Your task to perform on an android device: open wifi settings Image 0: 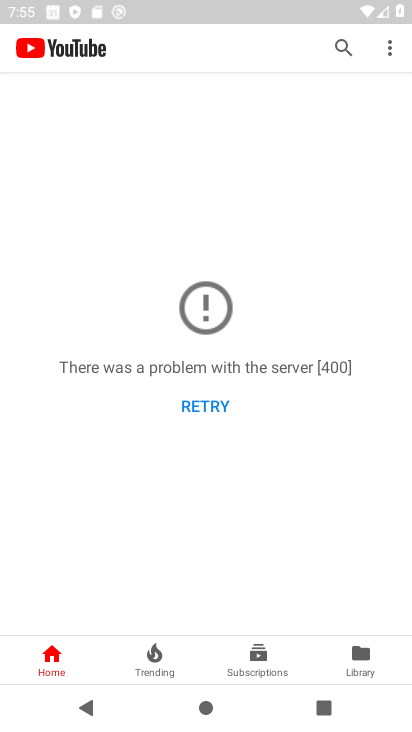
Step 0: press home button
Your task to perform on an android device: open wifi settings Image 1: 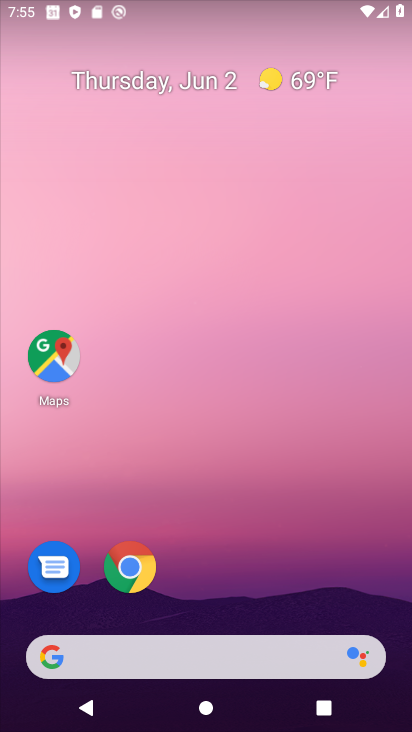
Step 1: drag from (385, 599) to (312, 156)
Your task to perform on an android device: open wifi settings Image 2: 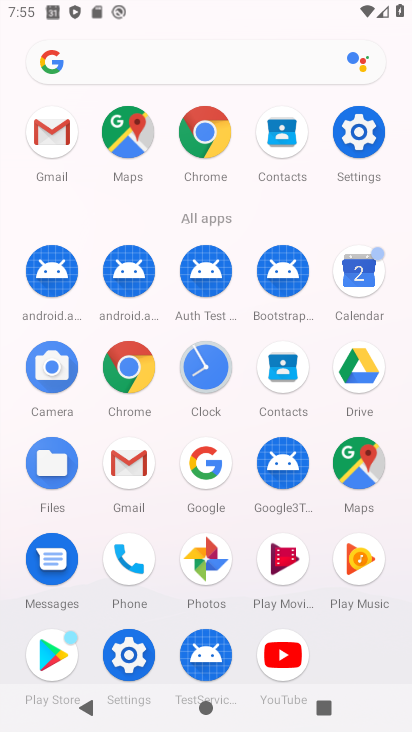
Step 2: click (129, 655)
Your task to perform on an android device: open wifi settings Image 3: 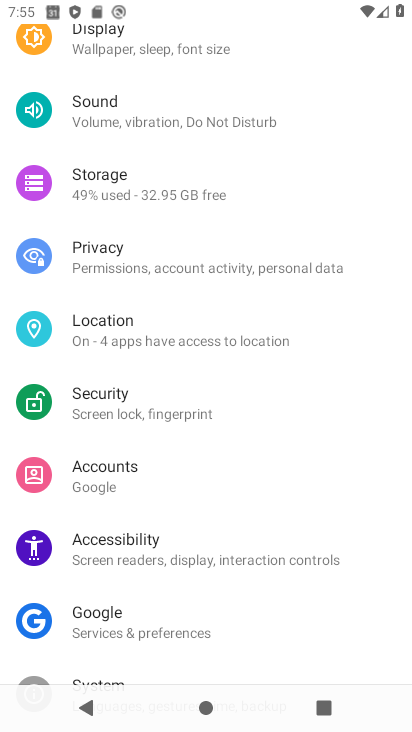
Step 3: drag from (344, 109) to (301, 516)
Your task to perform on an android device: open wifi settings Image 4: 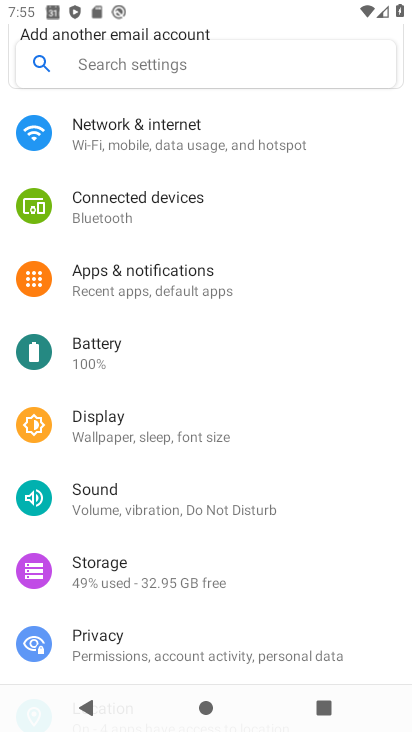
Step 4: drag from (331, 182) to (265, 499)
Your task to perform on an android device: open wifi settings Image 5: 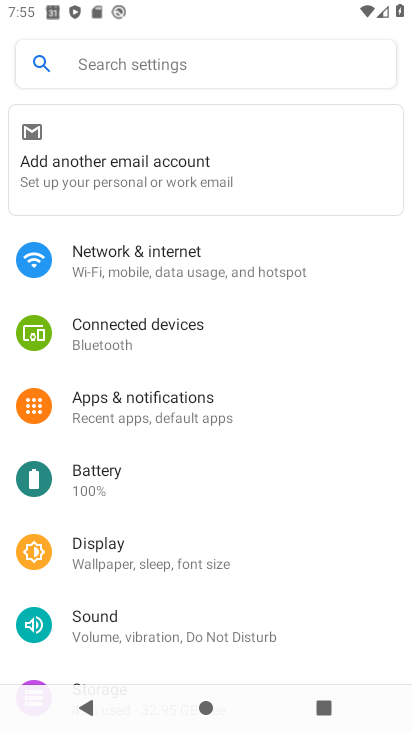
Step 5: click (109, 260)
Your task to perform on an android device: open wifi settings Image 6: 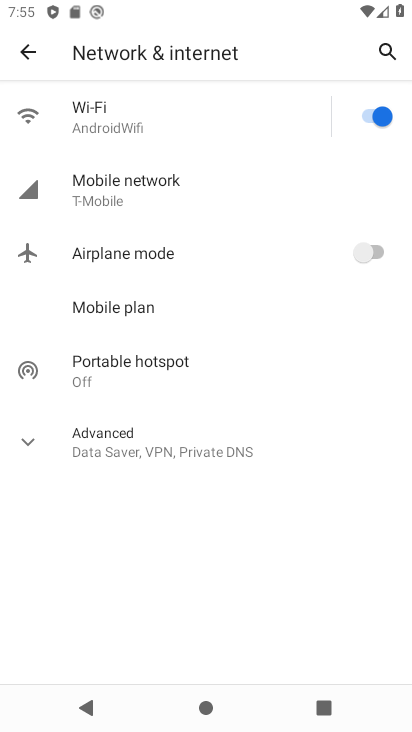
Step 6: click (86, 106)
Your task to perform on an android device: open wifi settings Image 7: 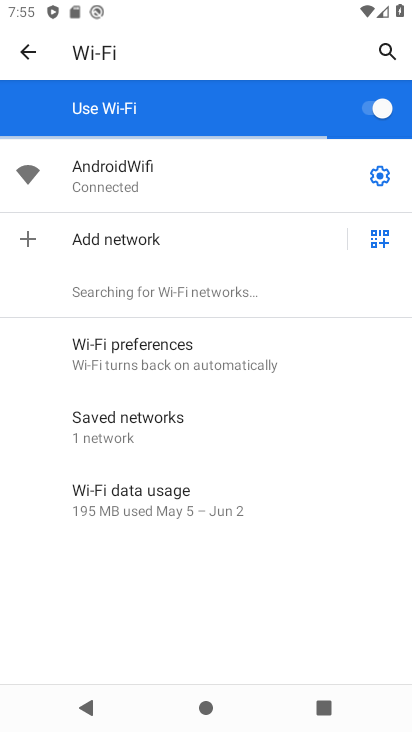
Step 7: click (381, 176)
Your task to perform on an android device: open wifi settings Image 8: 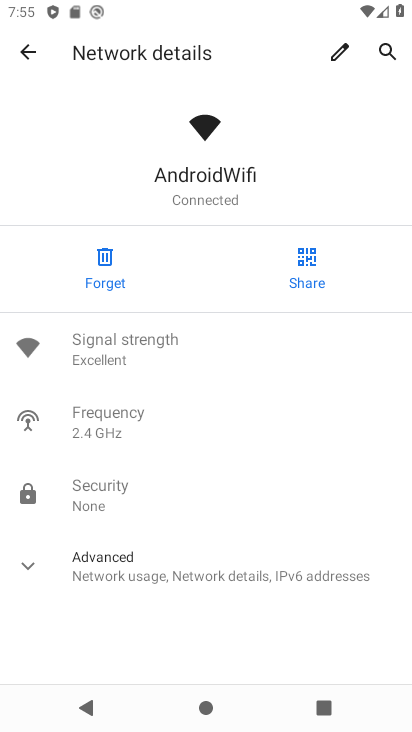
Step 8: click (28, 566)
Your task to perform on an android device: open wifi settings Image 9: 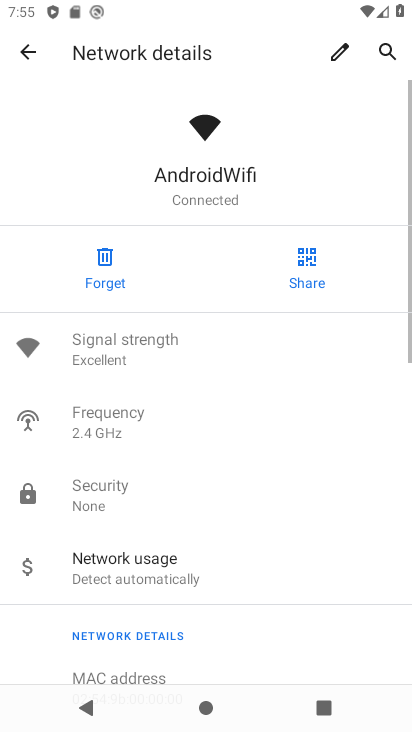
Step 9: task complete